Your task to perform on an android device: change the clock display to show seconds Image 0: 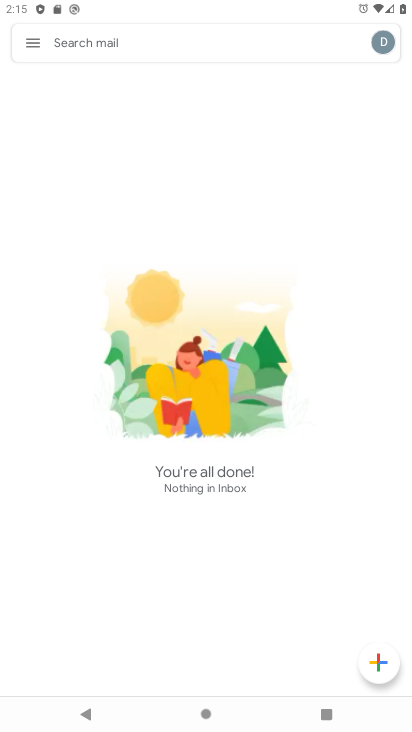
Step 0: press home button
Your task to perform on an android device: change the clock display to show seconds Image 1: 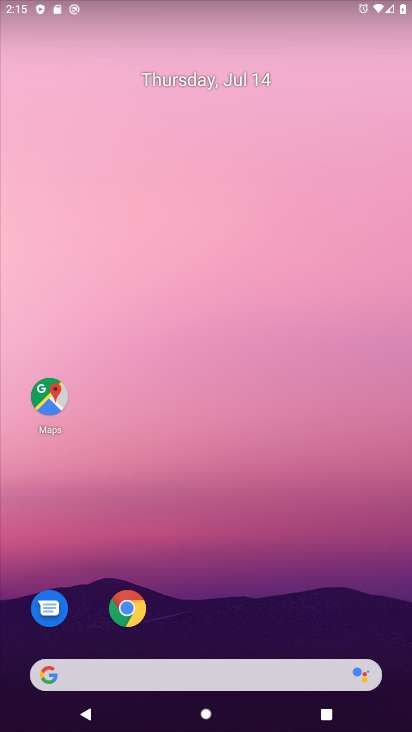
Step 1: drag from (237, 723) to (238, 129)
Your task to perform on an android device: change the clock display to show seconds Image 2: 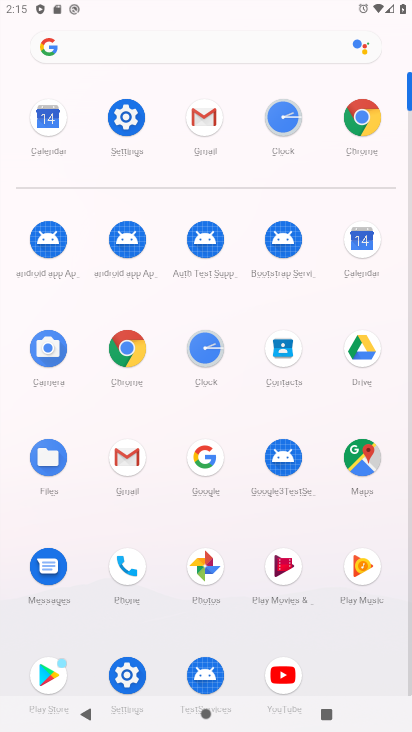
Step 2: click (212, 350)
Your task to perform on an android device: change the clock display to show seconds Image 3: 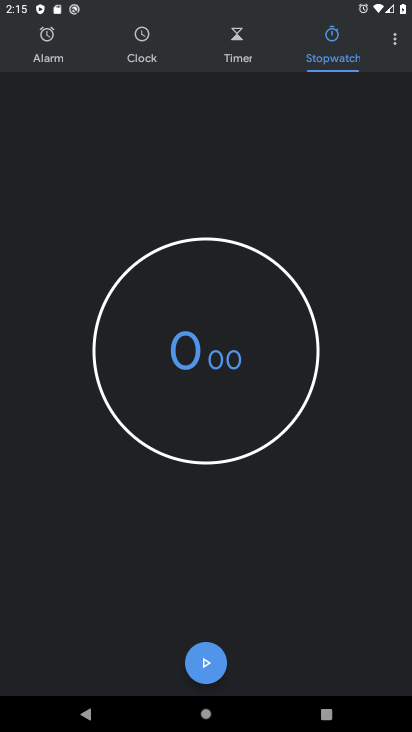
Step 3: click (394, 39)
Your task to perform on an android device: change the clock display to show seconds Image 4: 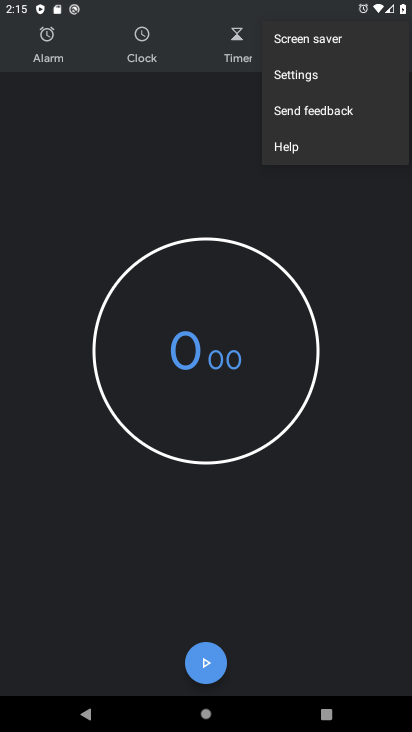
Step 4: click (312, 76)
Your task to perform on an android device: change the clock display to show seconds Image 5: 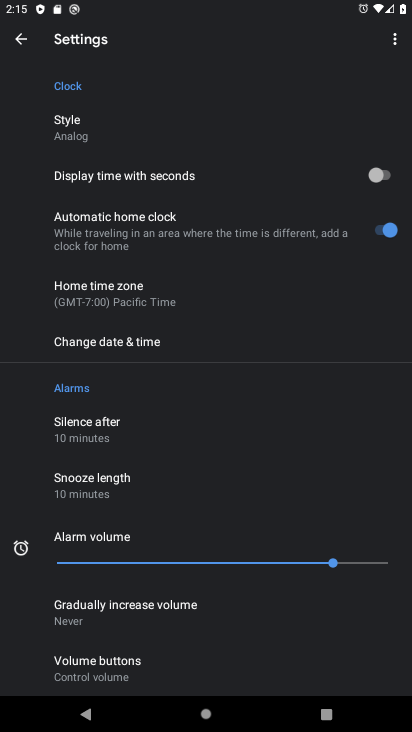
Step 5: click (389, 172)
Your task to perform on an android device: change the clock display to show seconds Image 6: 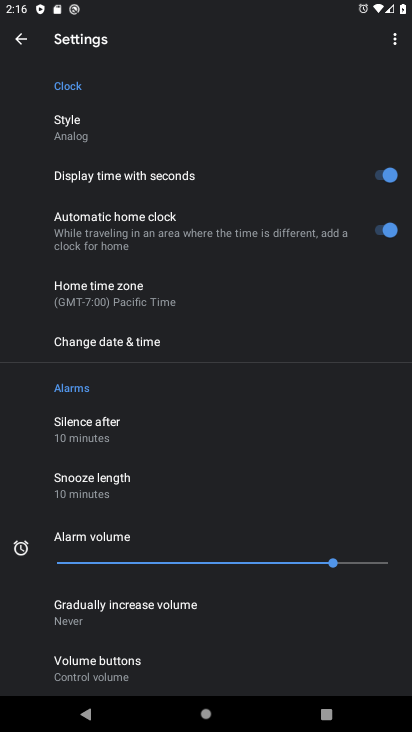
Step 6: task complete